Your task to perform on an android device: add a contact Image 0: 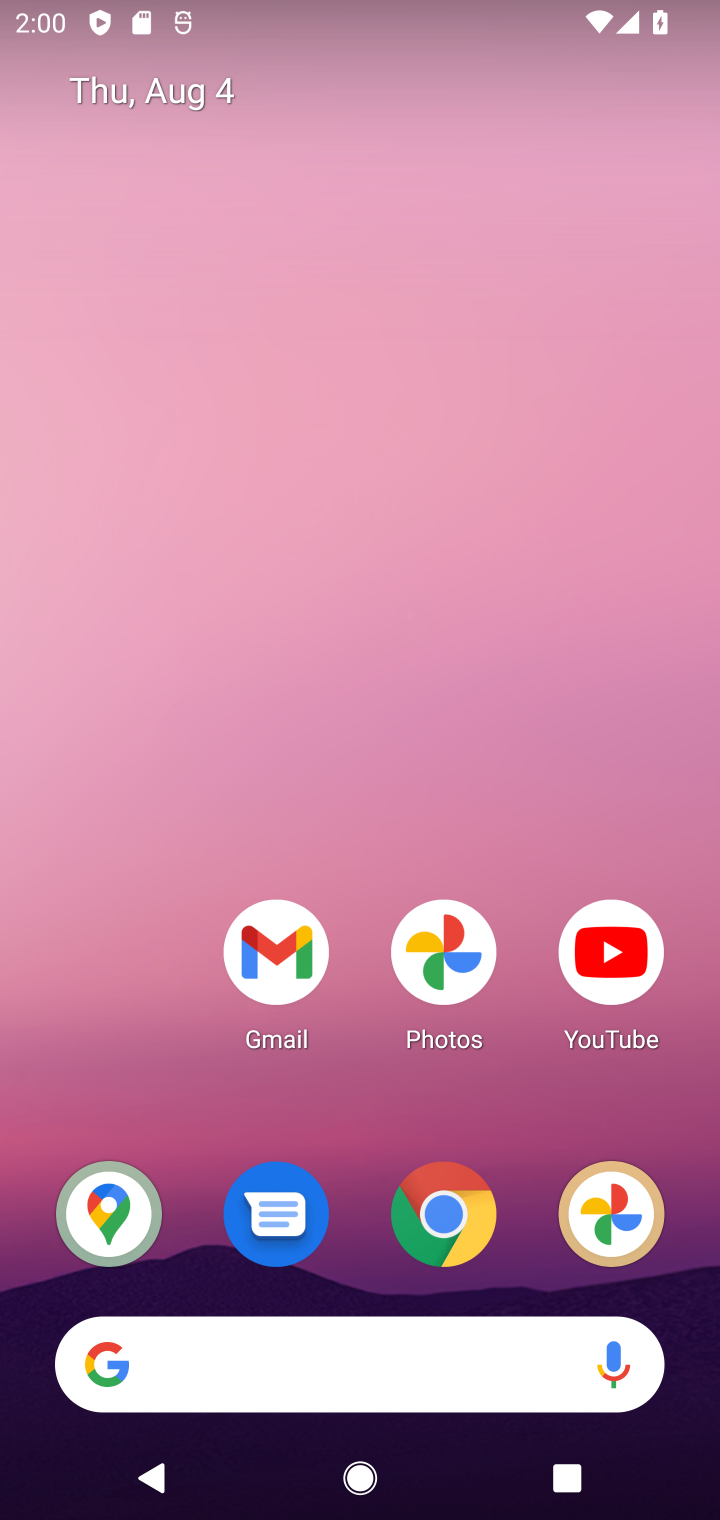
Step 0: drag from (517, 1211) to (151, 28)
Your task to perform on an android device: add a contact Image 1: 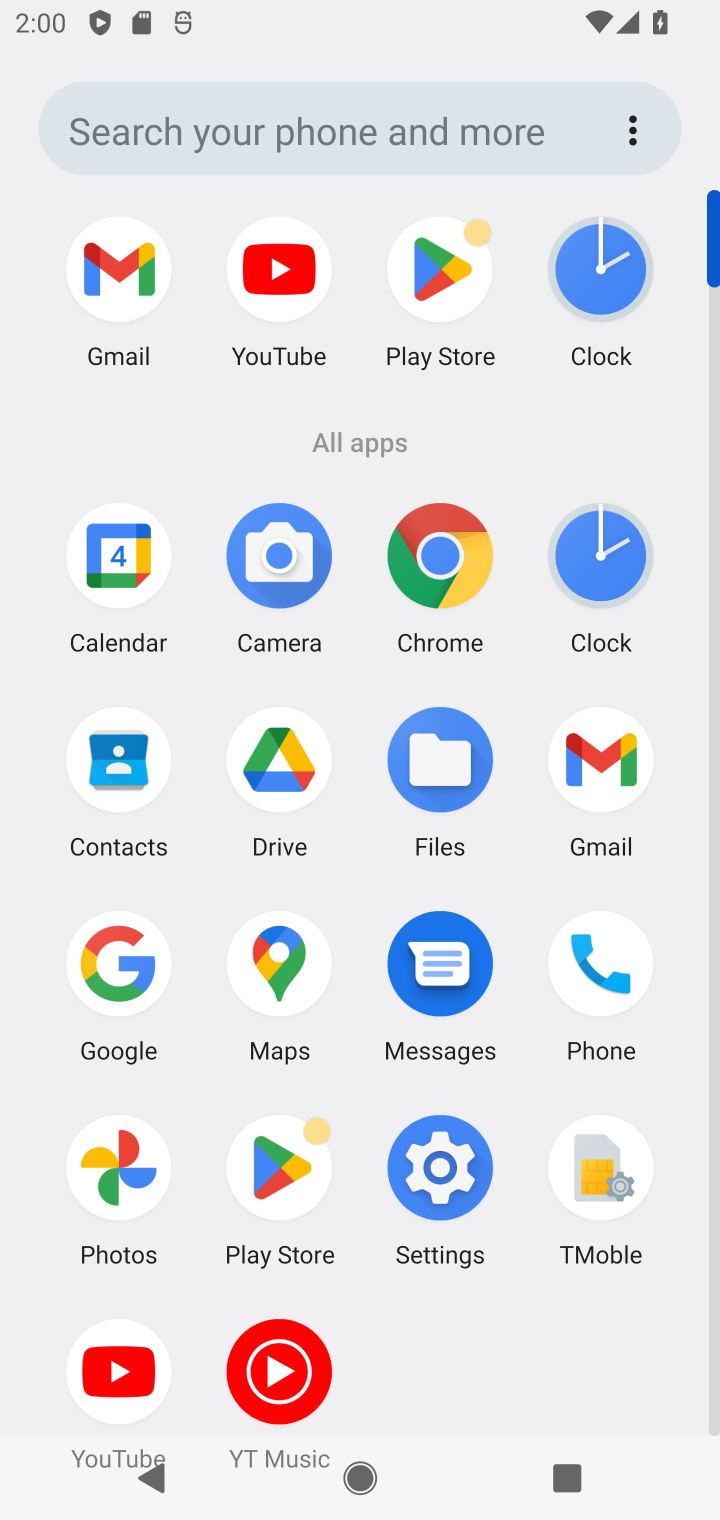
Step 1: click (105, 809)
Your task to perform on an android device: add a contact Image 2: 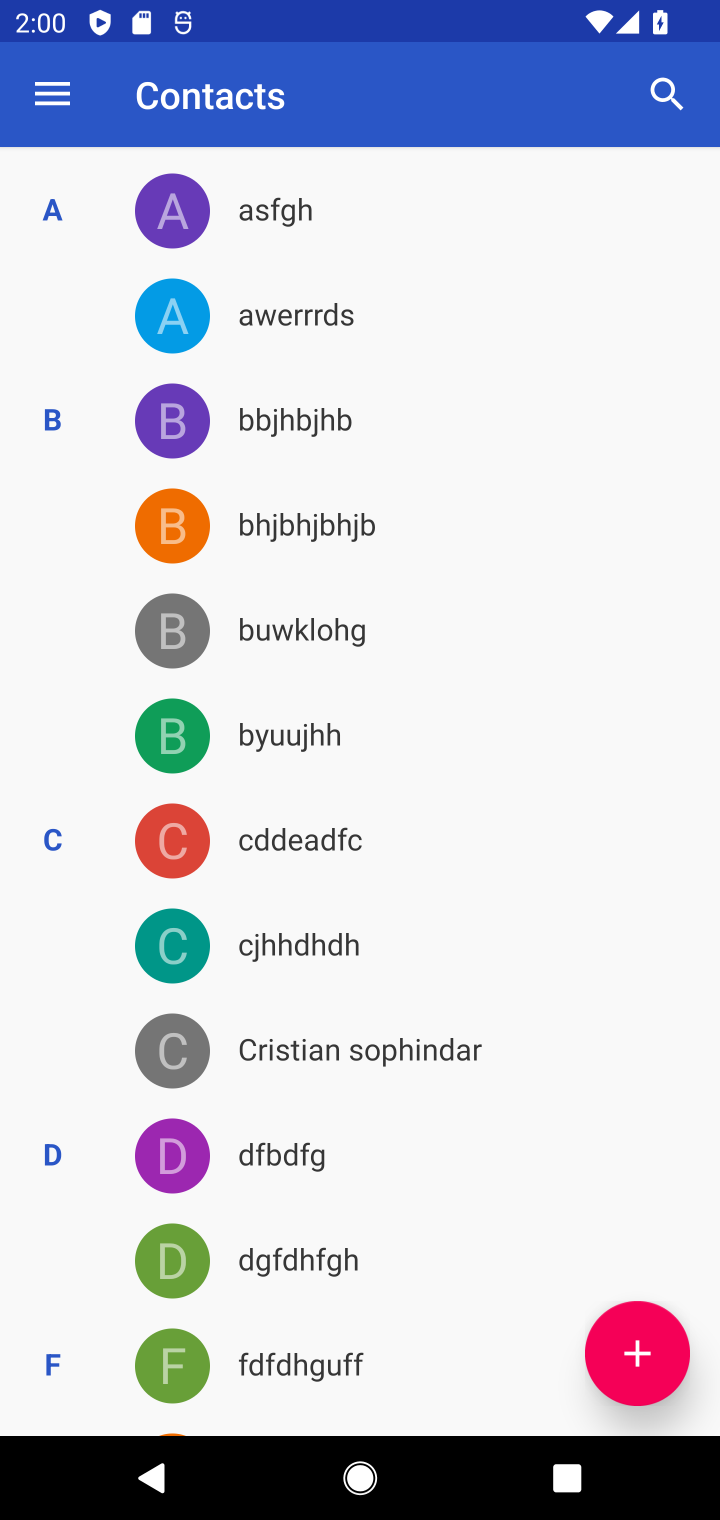
Step 2: click (634, 1337)
Your task to perform on an android device: add a contact Image 3: 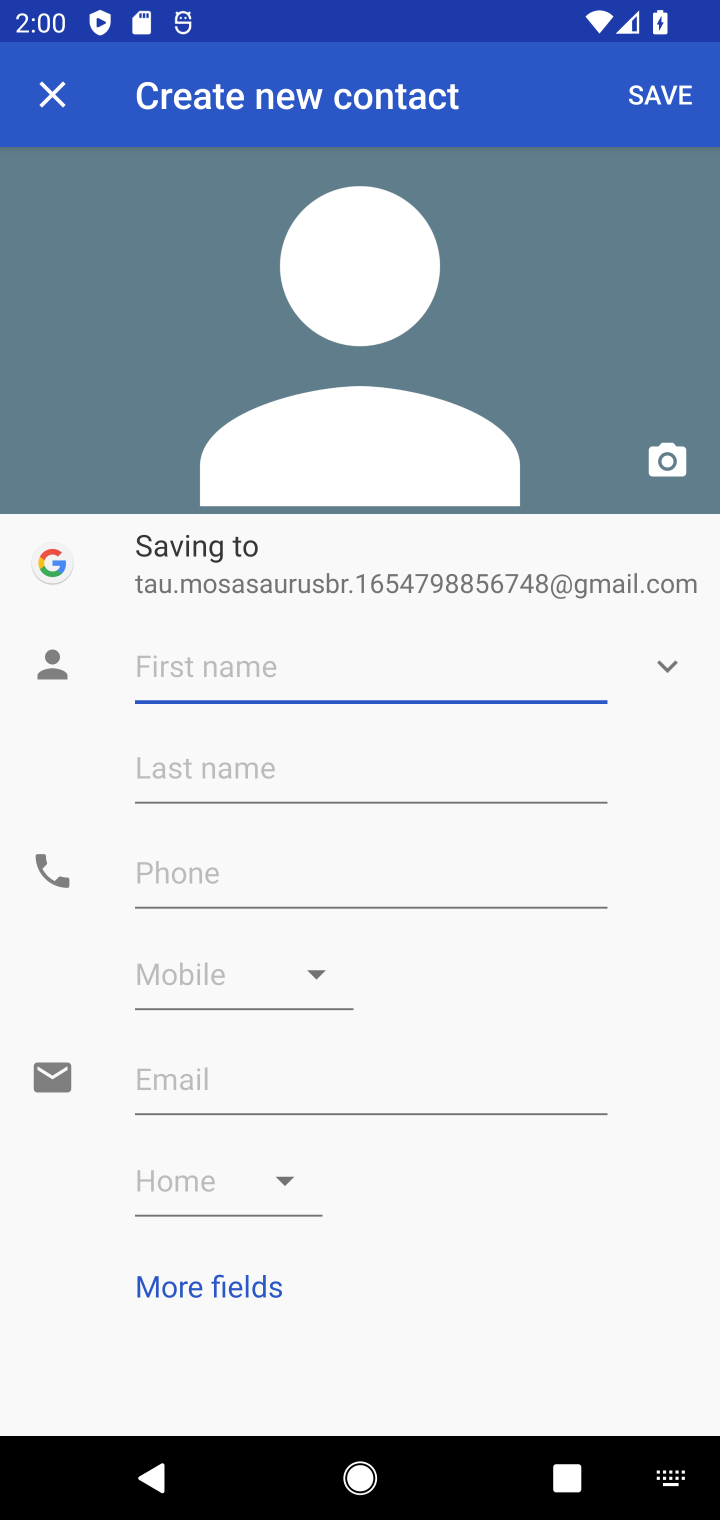
Step 3: type "tina"
Your task to perform on an android device: add a contact Image 4: 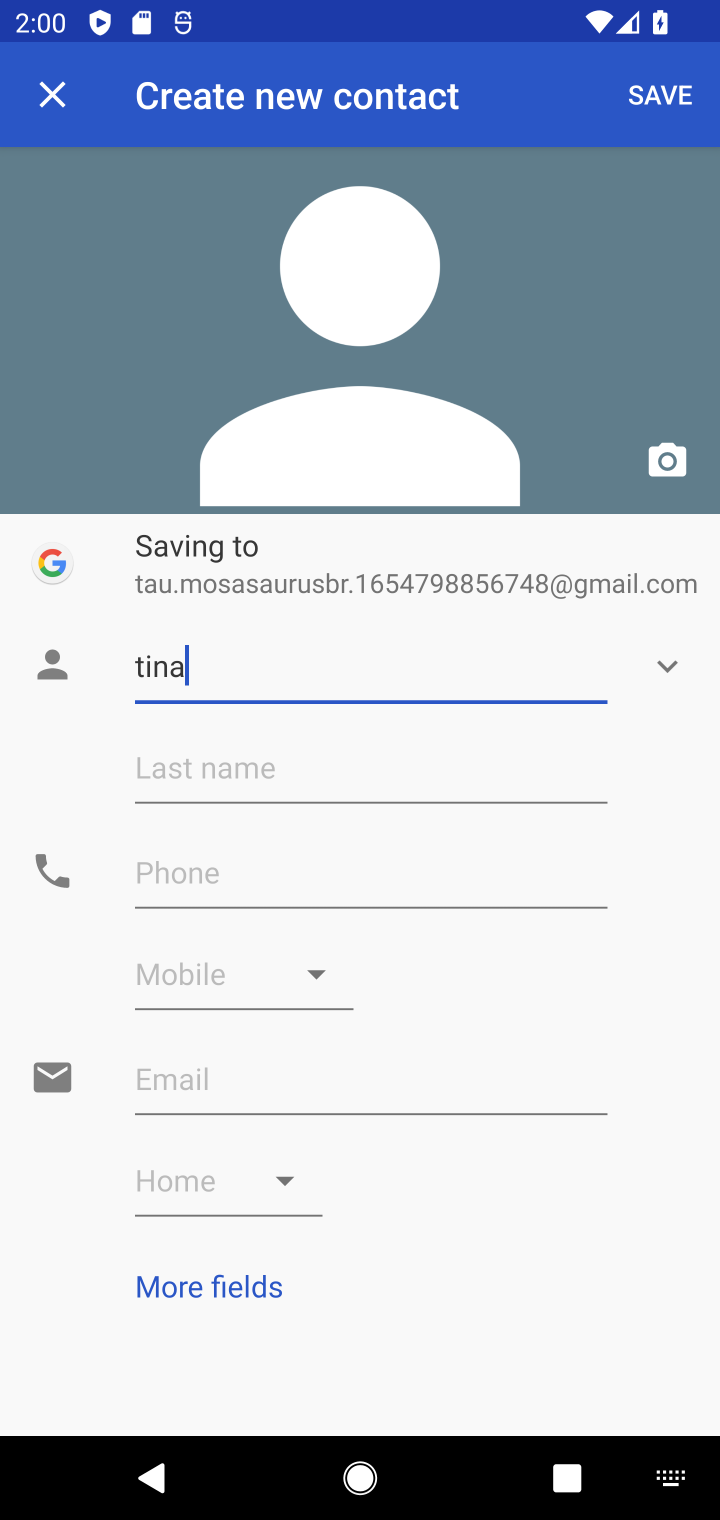
Step 4: click (642, 77)
Your task to perform on an android device: add a contact Image 5: 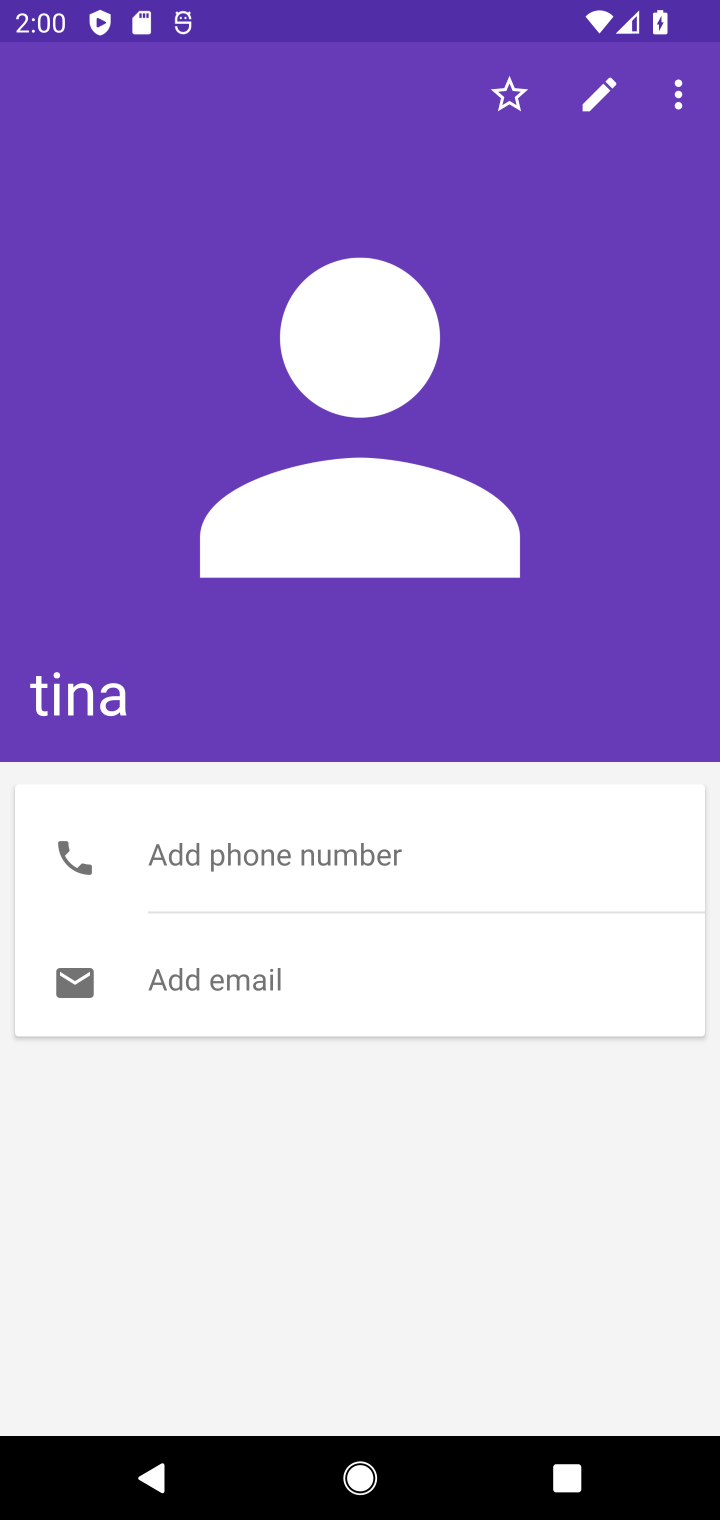
Step 5: task complete